Your task to perform on an android device: See recent photos Image 0: 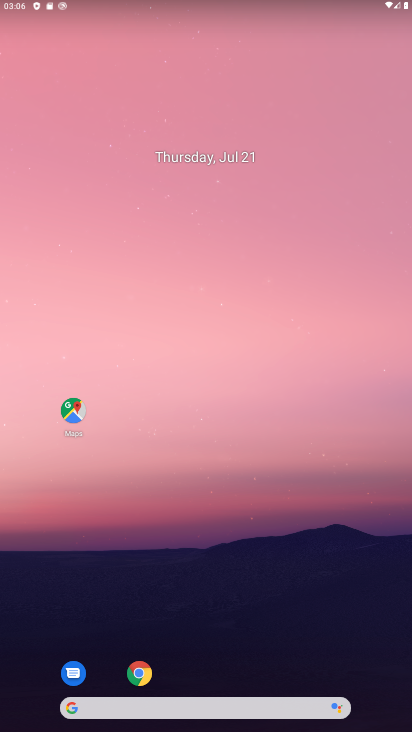
Step 0: drag from (282, 619) to (325, 79)
Your task to perform on an android device: See recent photos Image 1: 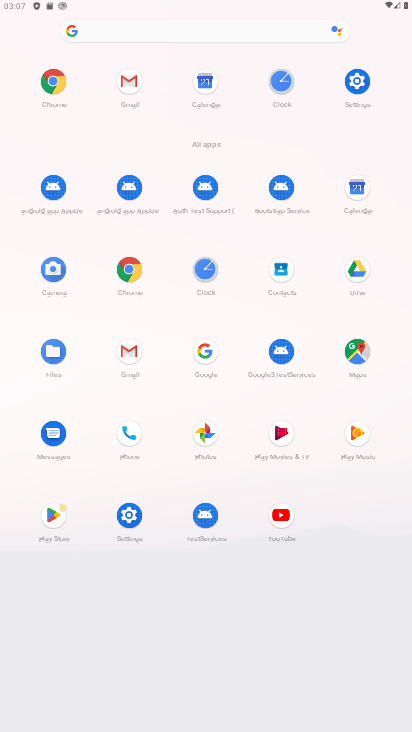
Step 1: click (198, 432)
Your task to perform on an android device: See recent photos Image 2: 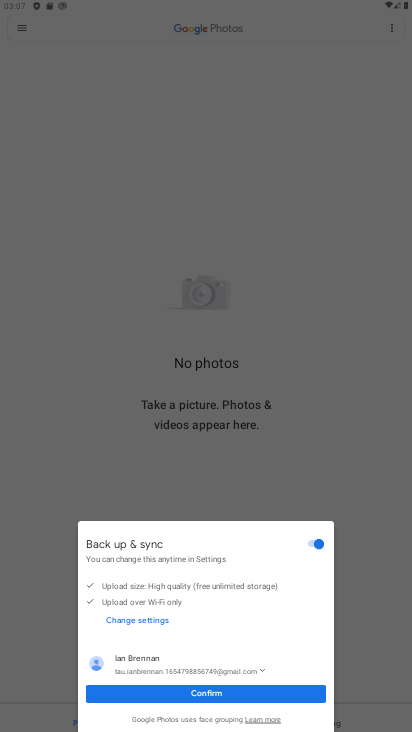
Step 2: click (238, 692)
Your task to perform on an android device: See recent photos Image 3: 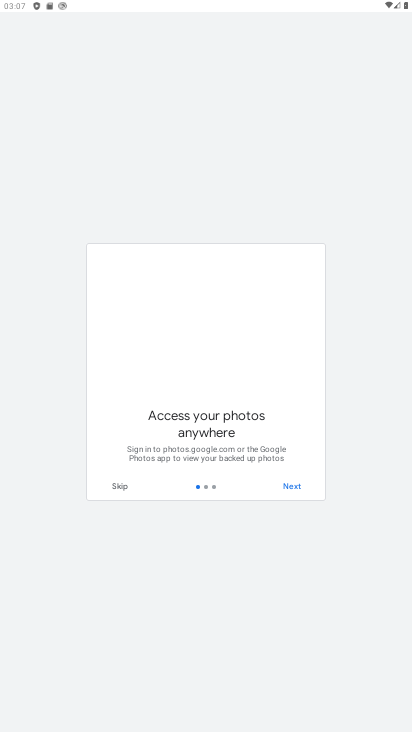
Step 3: click (288, 484)
Your task to perform on an android device: See recent photos Image 4: 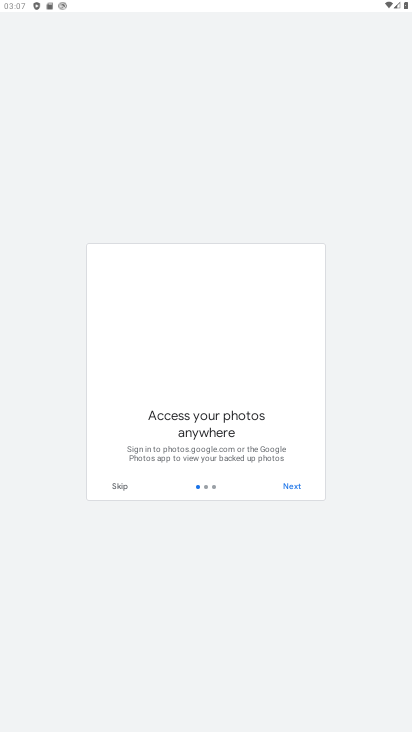
Step 4: click (288, 484)
Your task to perform on an android device: See recent photos Image 5: 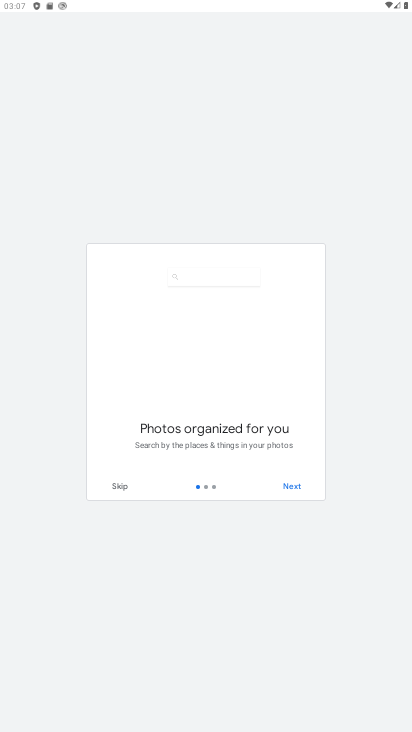
Step 5: click (288, 484)
Your task to perform on an android device: See recent photos Image 6: 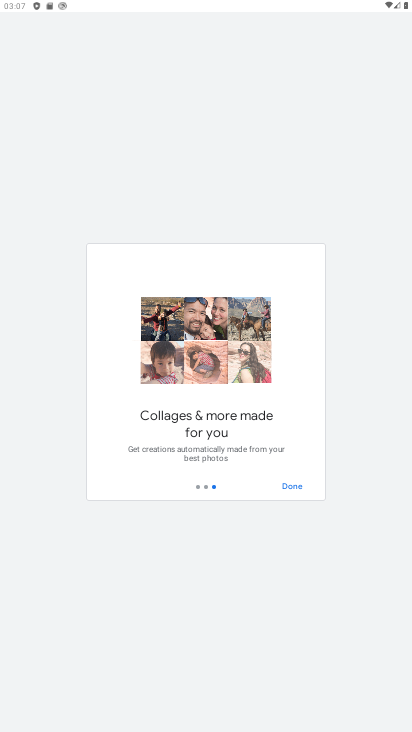
Step 6: click (288, 484)
Your task to perform on an android device: See recent photos Image 7: 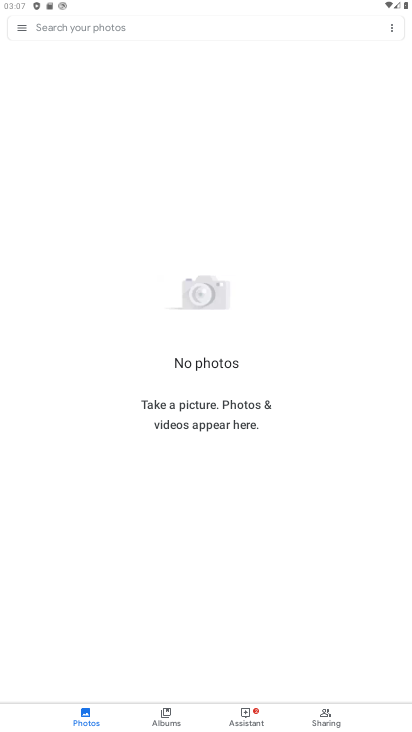
Step 7: task complete